Your task to perform on an android device: toggle airplane mode Image 0: 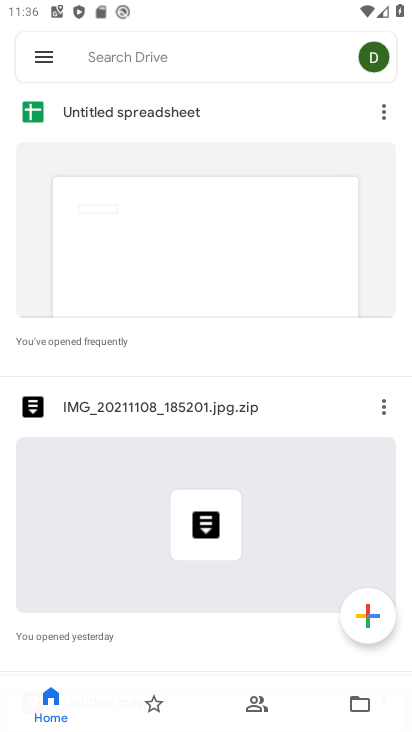
Step 0: drag from (261, 0) to (272, 462)
Your task to perform on an android device: toggle airplane mode Image 1: 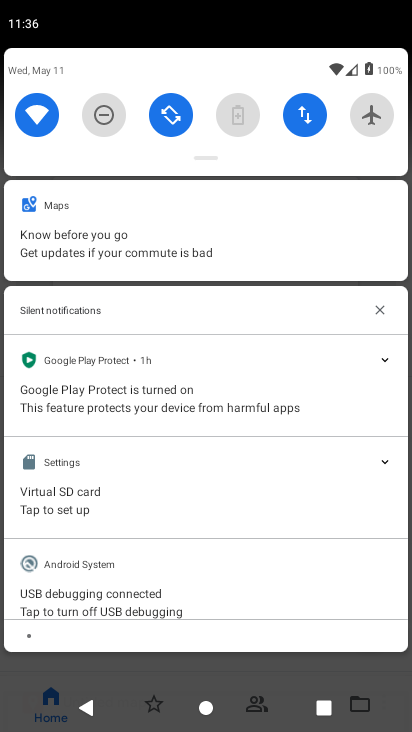
Step 1: click (377, 118)
Your task to perform on an android device: toggle airplane mode Image 2: 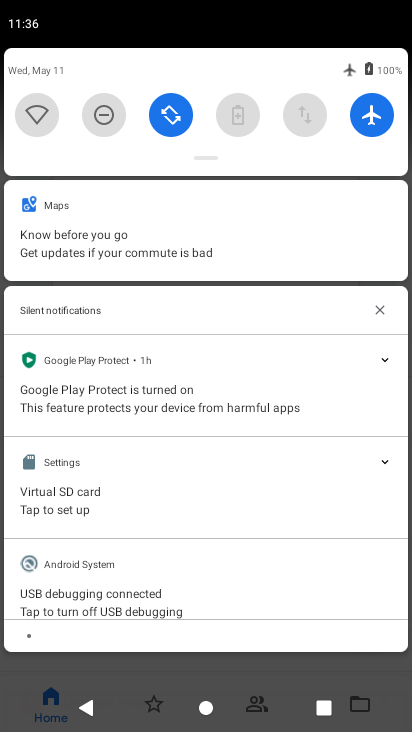
Step 2: task complete